Your task to perform on an android device: check out phone information Image 0: 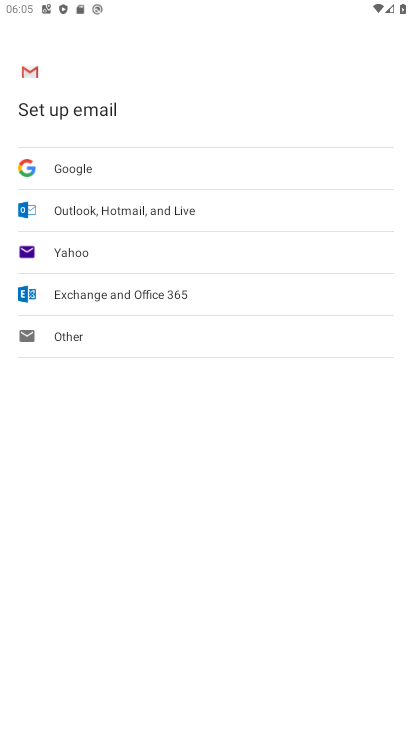
Step 0: press home button
Your task to perform on an android device: check out phone information Image 1: 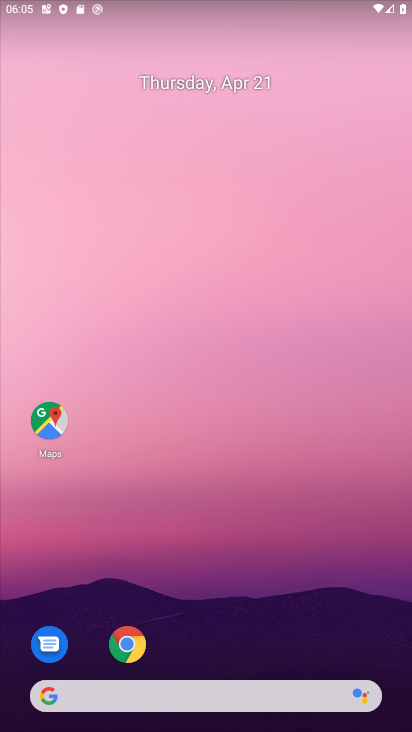
Step 1: drag from (258, 648) to (257, 11)
Your task to perform on an android device: check out phone information Image 2: 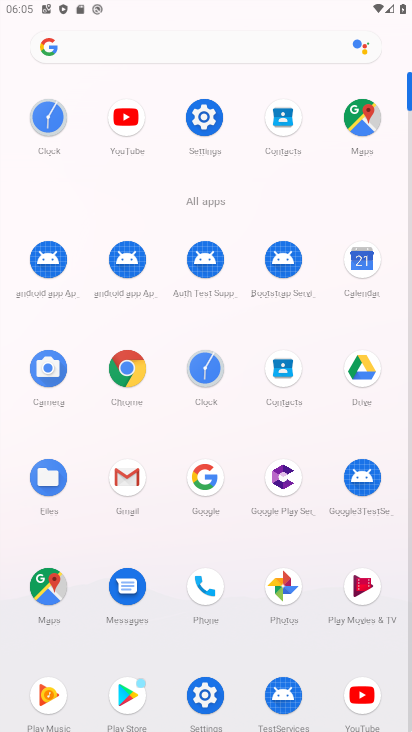
Step 2: click (200, 586)
Your task to perform on an android device: check out phone information Image 3: 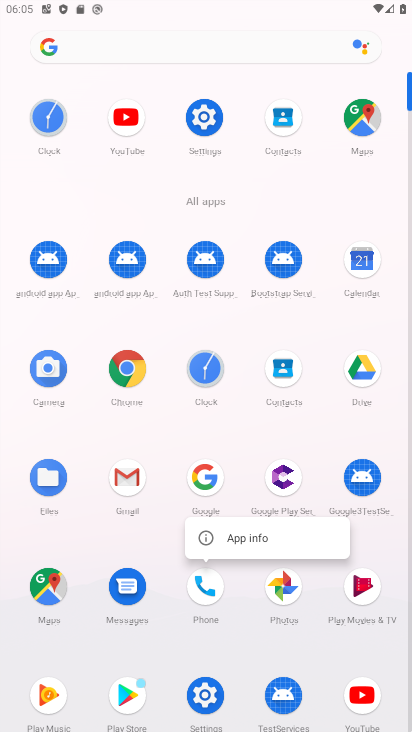
Step 3: click (229, 535)
Your task to perform on an android device: check out phone information Image 4: 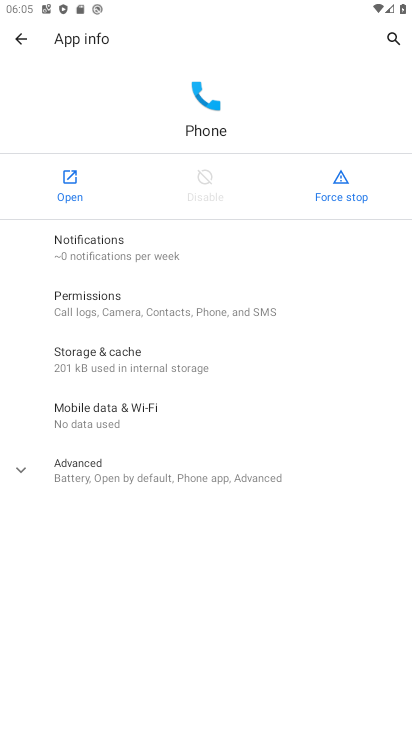
Step 4: task complete